Your task to perform on an android device: toggle improve location accuracy Image 0: 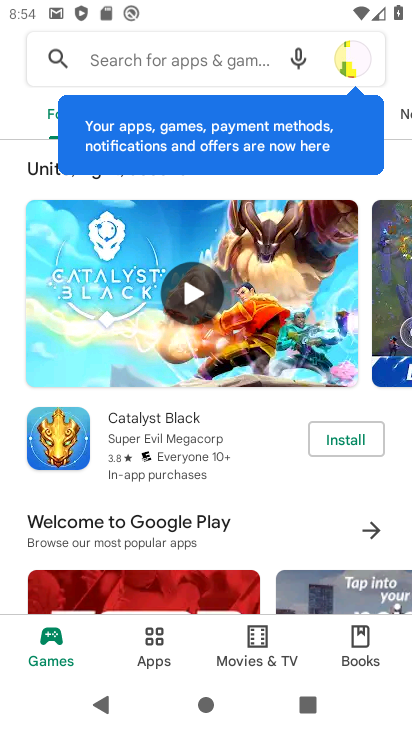
Step 0: press home button
Your task to perform on an android device: toggle improve location accuracy Image 1: 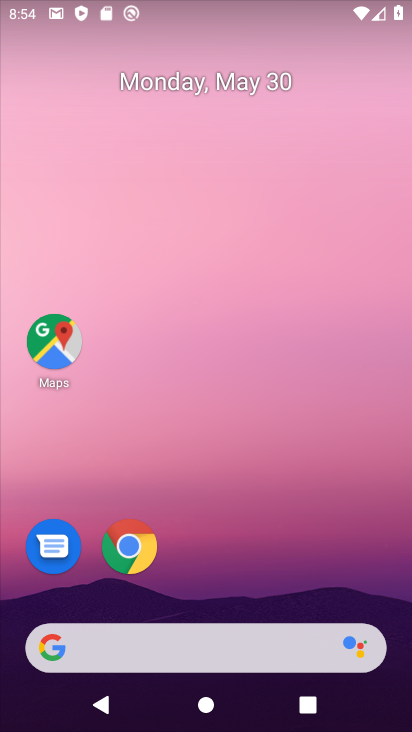
Step 1: drag from (226, 506) to (161, 172)
Your task to perform on an android device: toggle improve location accuracy Image 2: 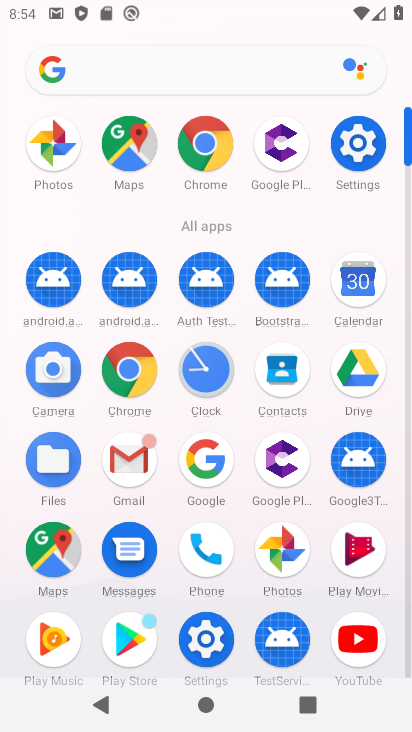
Step 2: click (362, 144)
Your task to perform on an android device: toggle improve location accuracy Image 3: 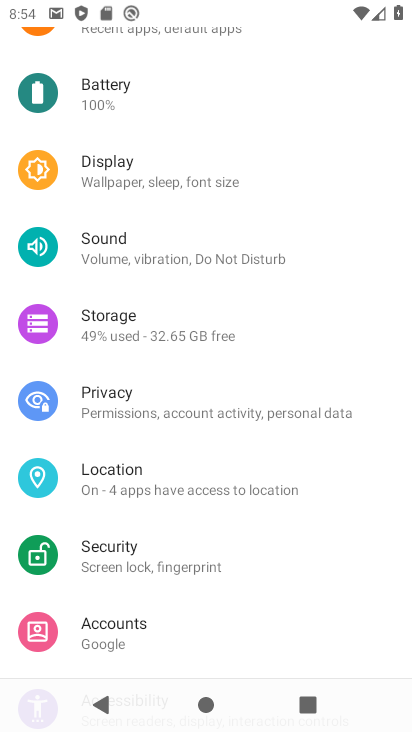
Step 3: click (119, 471)
Your task to perform on an android device: toggle improve location accuracy Image 4: 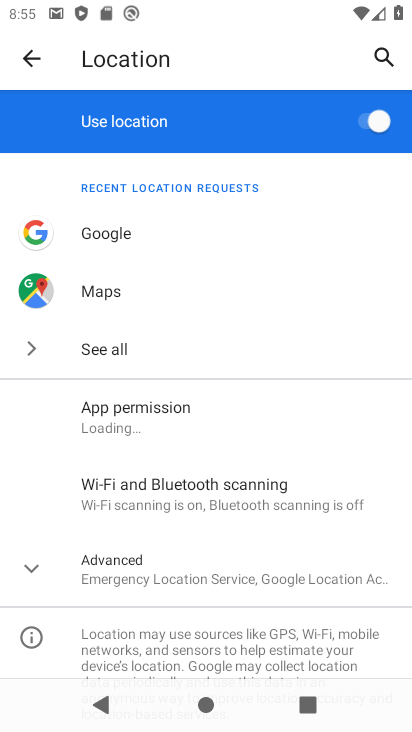
Step 4: click (79, 565)
Your task to perform on an android device: toggle improve location accuracy Image 5: 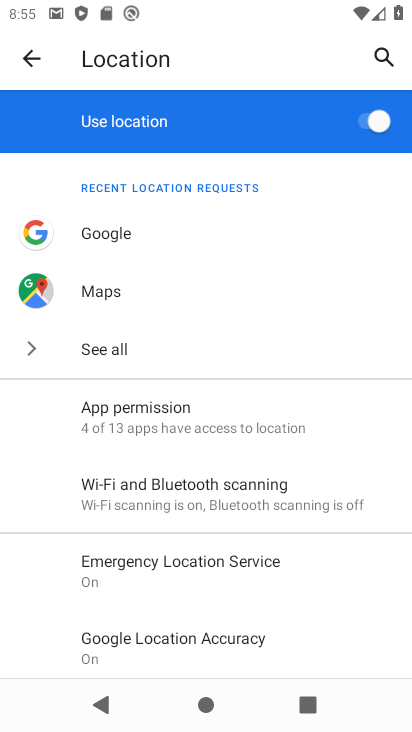
Step 5: click (194, 628)
Your task to perform on an android device: toggle improve location accuracy Image 6: 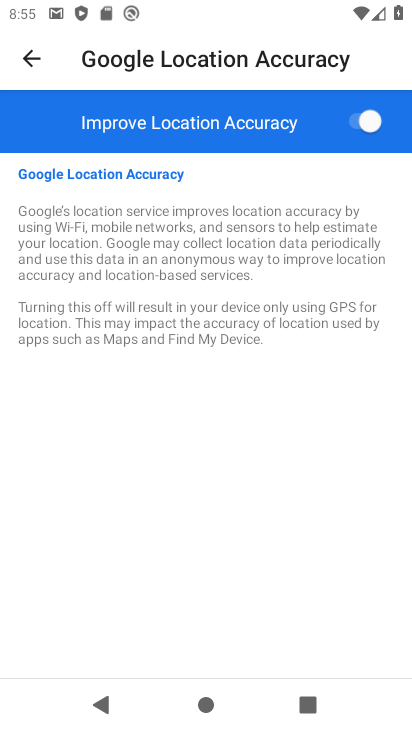
Step 6: click (364, 128)
Your task to perform on an android device: toggle improve location accuracy Image 7: 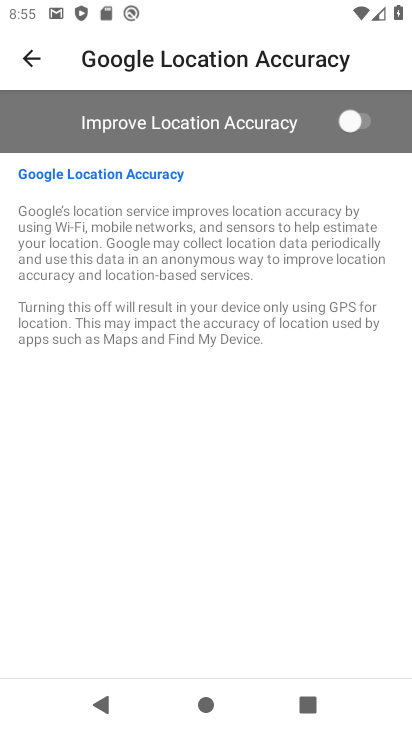
Step 7: task complete